Your task to perform on an android device: read, delete, or share a saved page in the chrome app Image 0: 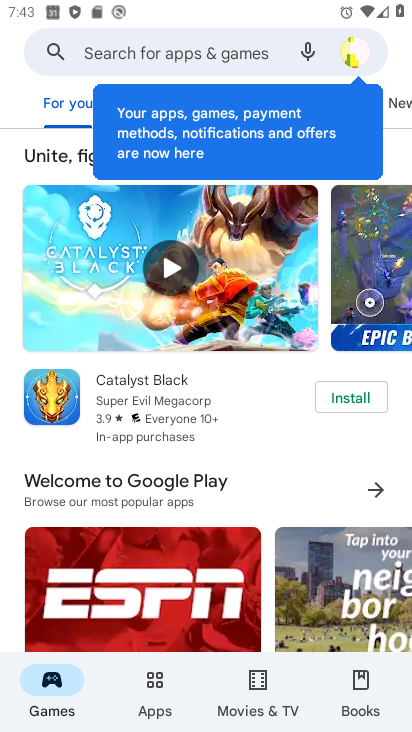
Step 0: press home button
Your task to perform on an android device: read, delete, or share a saved page in the chrome app Image 1: 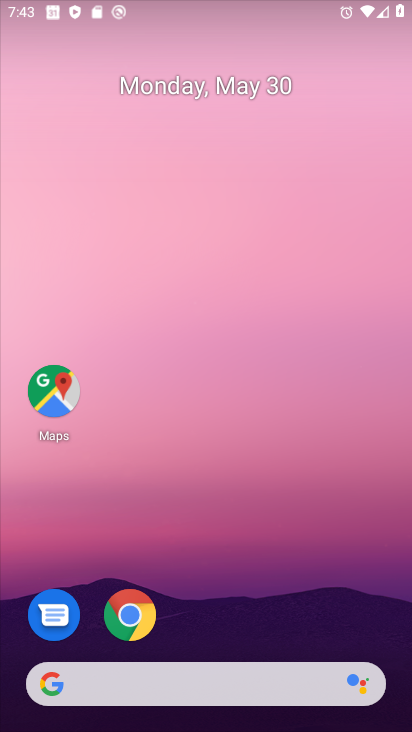
Step 1: drag from (376, 521) to (331, 44)
Your task to perform on an android device: read, delete, or share a saved page in the chrome app Image 2: 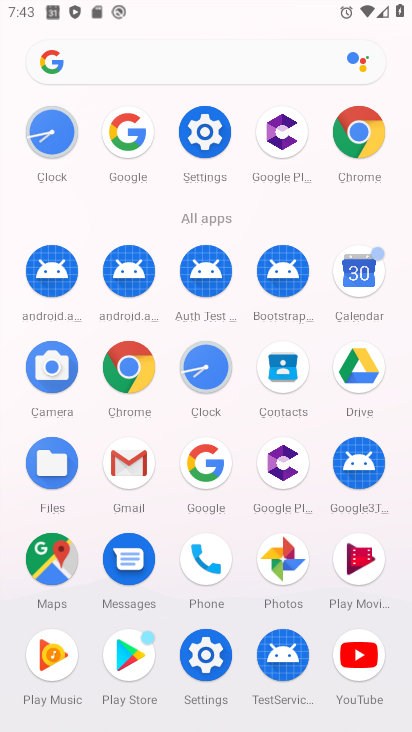
Step 2: click (354, 145)
Your task to perform on an android device: read, delete, or share a saved page in the chrome app Image 3: 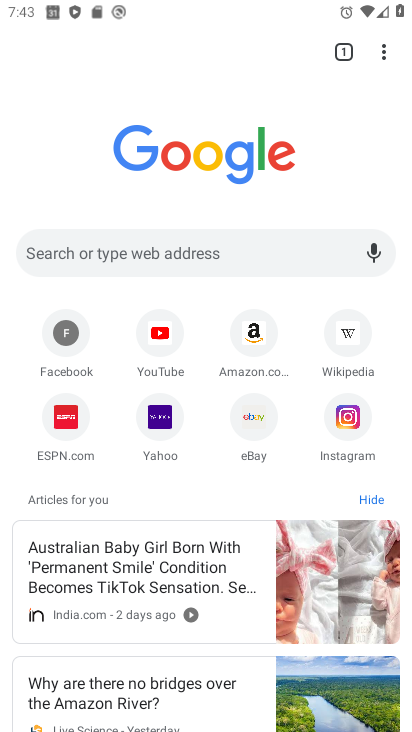
Step 3: task complete